Your task to perform on an android device: change the clock display to analog Image 0: 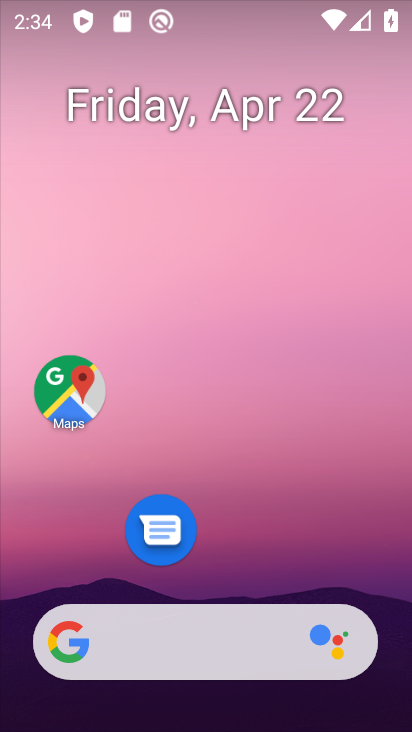
Step 0: drag from (259, 477) to (131, 2)
Your task to perform on an android device: change the clock display to analog Image 1: 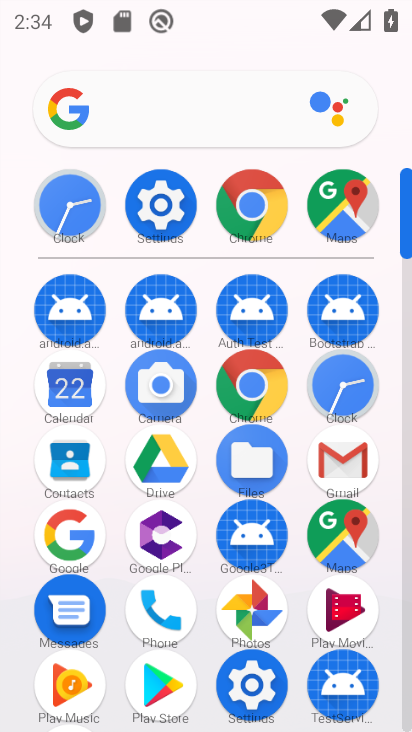
Step 1: click (347, 395)
Your task to perform on an android device: change the clock display to analog Image 2: 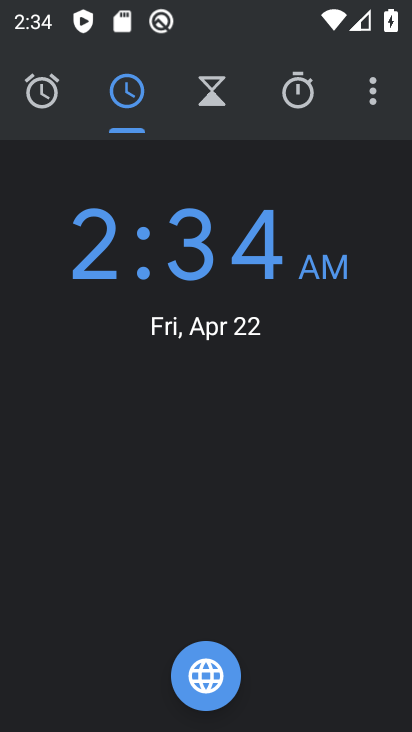
Step 2: click (369, 90)
Your task to perform on an android device: change the clock display to analog Image 3: 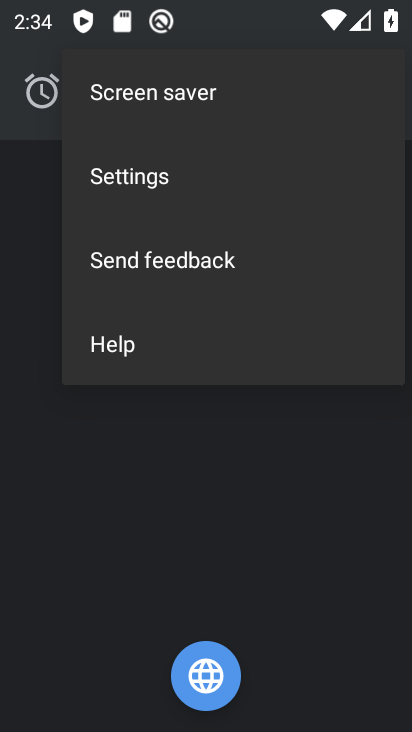
Step 3: click (147, 187)
Your task to perform on an android device: change the clock display to analog Image 4: 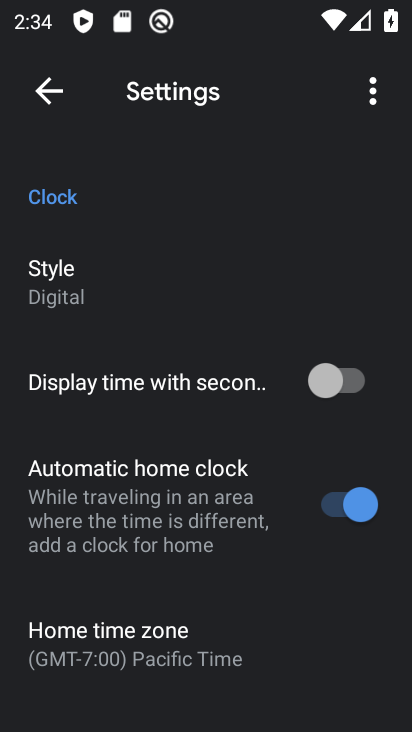
Step 4: drag from (194, 501) to (208, 202)
Your task to perform on an android device: change the clock display to analog Image 5: 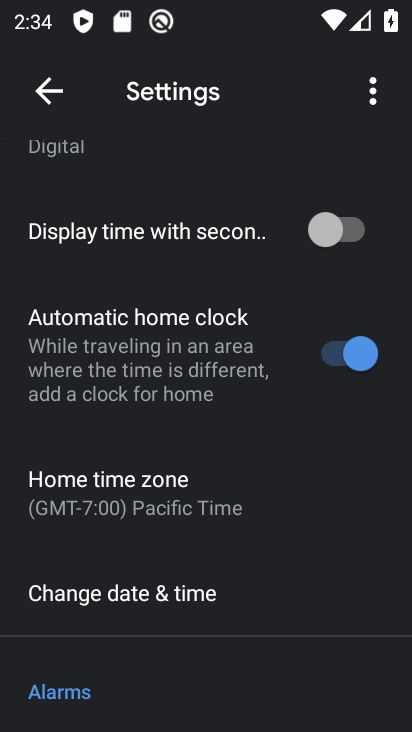
Step 5: drag from (176, 164) to (172, 686)
Your task to perform on an android device: change the clock display to analog Image 6: 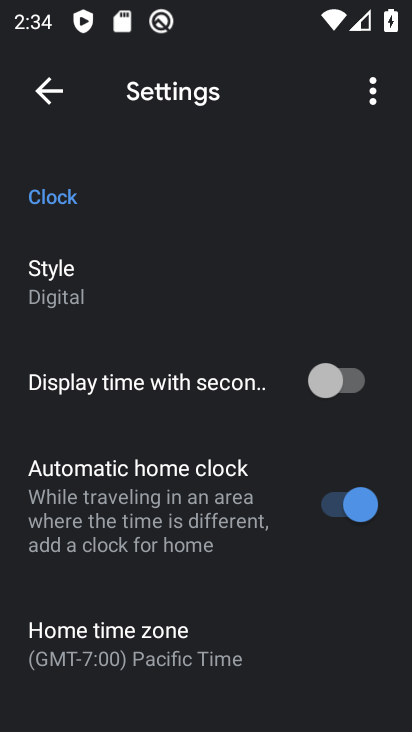
Step 6: click (78, 277)
Your task to perform on an android device: change the clock display to analog Image 7: 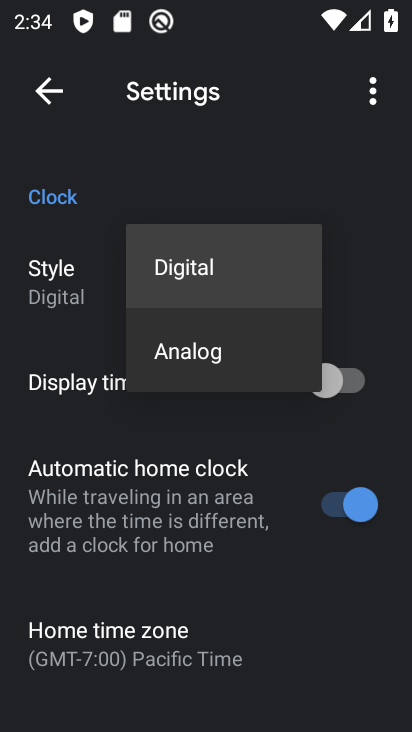
Step 7: click (197, 355)
Your task to perform on an android device: change the clock display to analog Image 8: 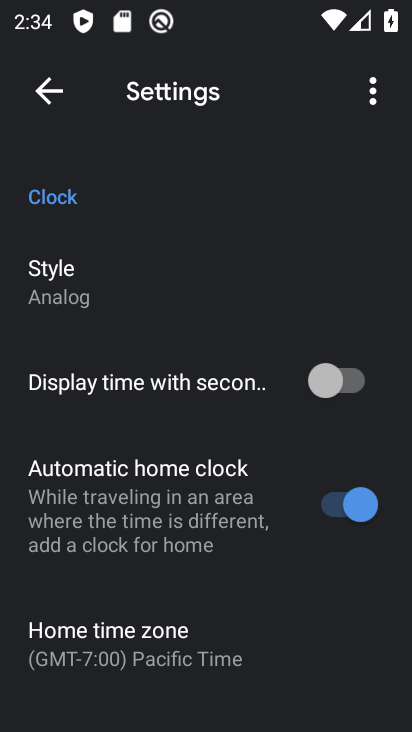
Step 8: task complete